Your task to perform on an android device: turn on the 12-hour format for clock Image 0: 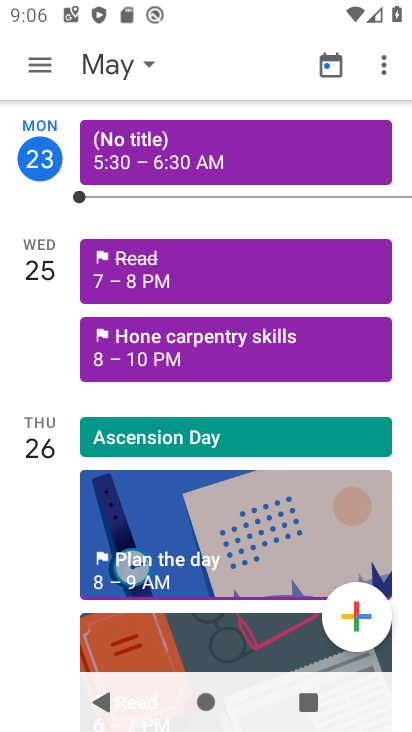
Step 0: press home button
Your task to perform on an android device: turn on the 12-hour format for clock Image 1: 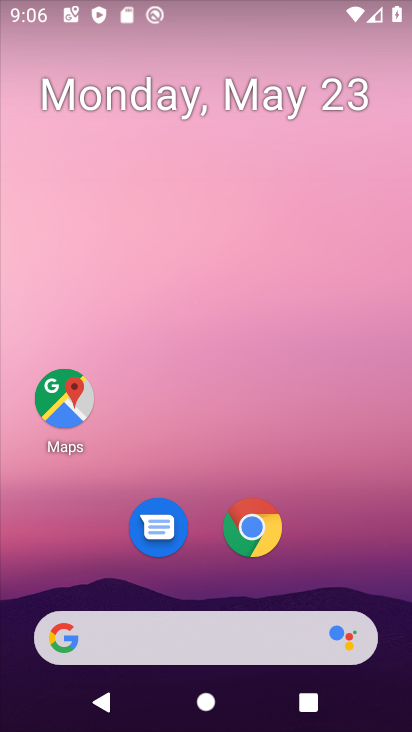
Step 1: drag from (213, 399) to (203, 12)
Your task to perform on an android device: turn on the 12-hour format for clock Image 2: 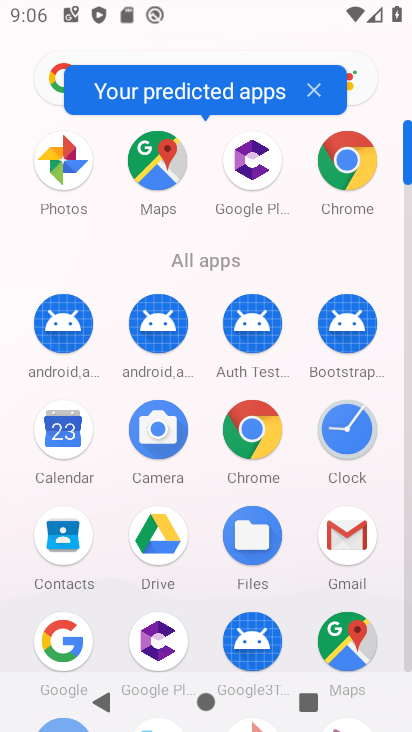
Step 2: click (351, 432)
Your task to perform on an android device: turn on the 12-hour format for clock Image 3: 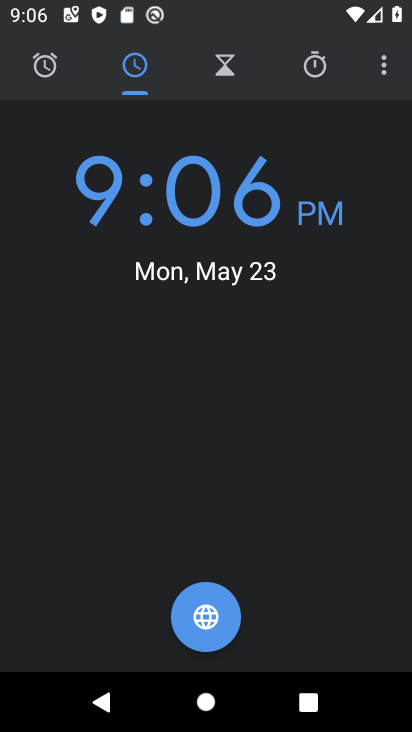
Step 3: click (381, 73)
Your task to perform on an android device: turn on the 12-hour format for clock Image 4: 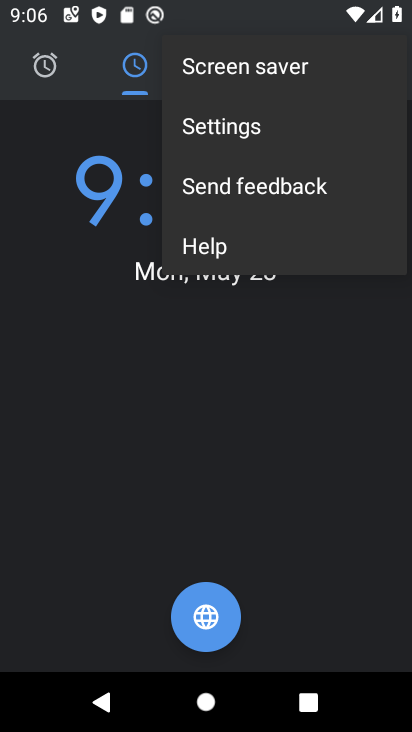
Step 4: click (293, 133)
Your task to perform on an android device: turn on the 12-hour format for clock Image 5: 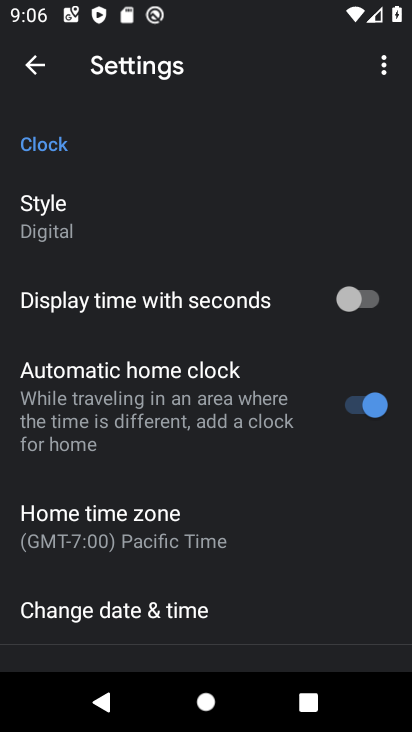
Step 5: click (267, 621)
Your task to perform on an android device: turn on the 12-hour format for clock Image 6: 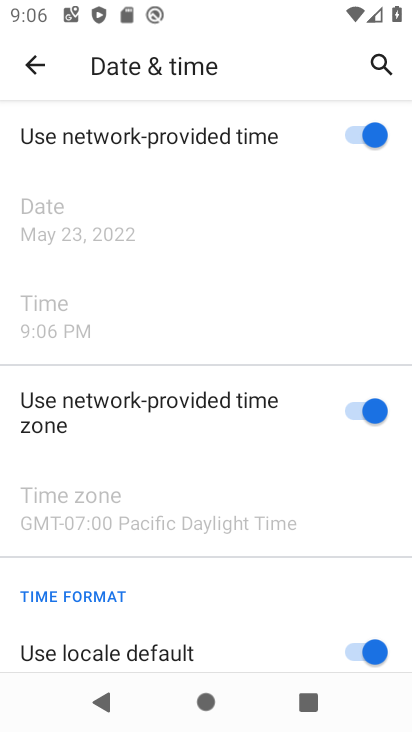
Step 6: task complete